Your task to perform on an android device: find photos in the google photos app Image 0: 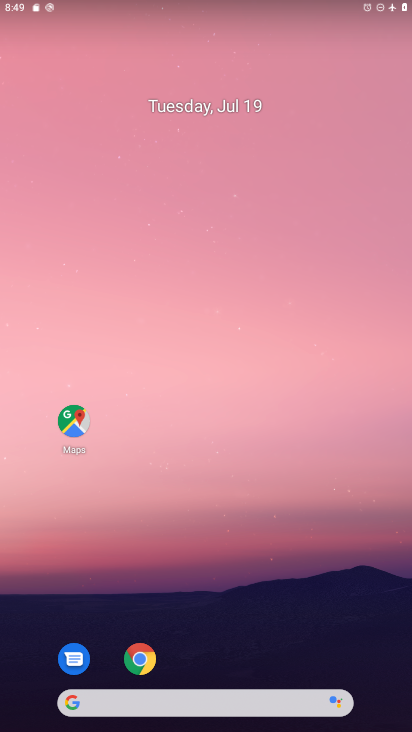
Step 0: drag from (250, 637) to (247, 232)
Your task to perform on an android device: find photos in the google photos app Image 1: 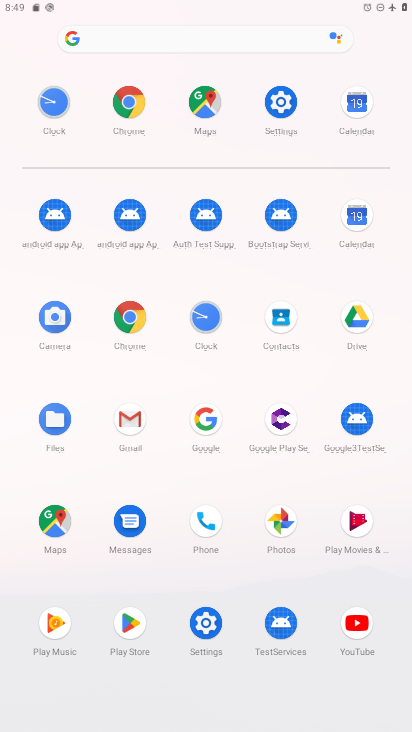
Step 1: click (287, 521)
Your task to perform on an android device: find photos in the google photos app Image 2: 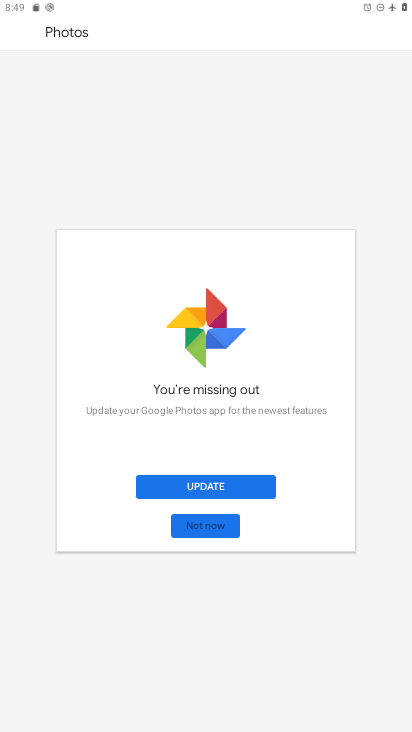
Step 2: click (227, 531)
Your task to perform on an android device: find photos in the google photos app Image 3: 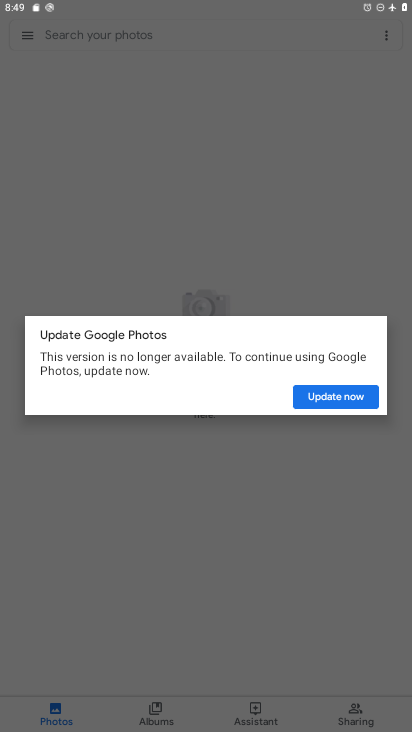
Step 3: click (295, 397)
Your task to perform on an android device: find photos in the google photos app Image 4: 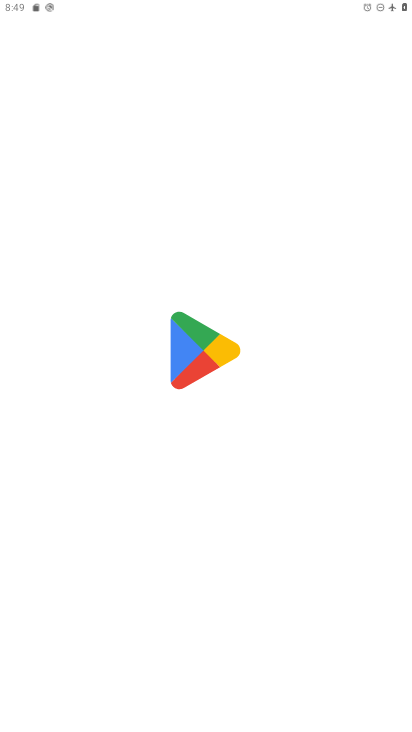
Step 4: press back button
Your task to perform on an android device: find photos in the google photos app Image 5: 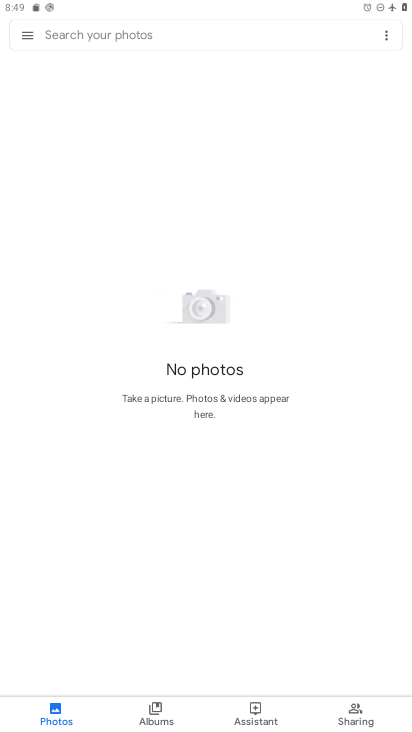
Step 5: click (168, 708)
Your task to perform on an android device: find photos in the google photos app Image 6: 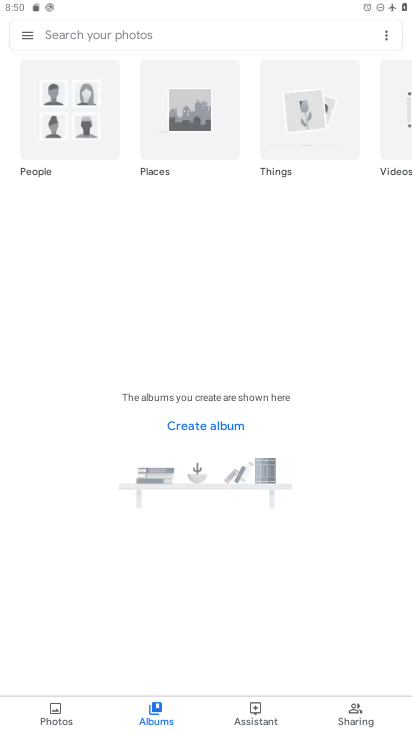
Step 6: task complete